Your task to perform on an android device: see creations saved in the google photos Image 0: 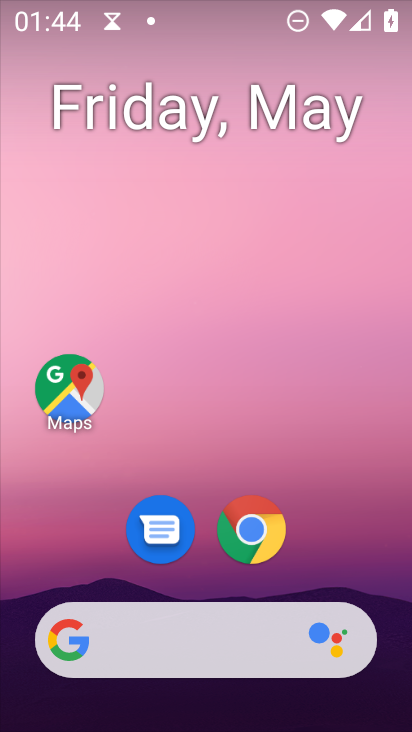
Step 0: drag from (326, 548) to (314, 174)
Your task to perform on an android device: see creations saved in the google photos Image 1: 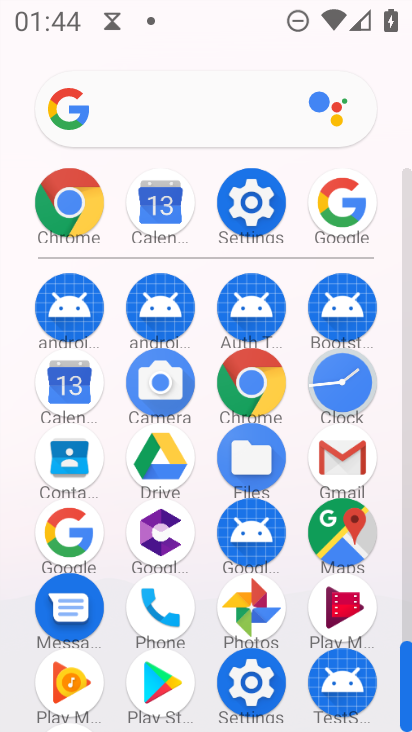
Step 1: click (240, 593)
Your task to perform on an android device: see creations saved in the google photos Image 2: 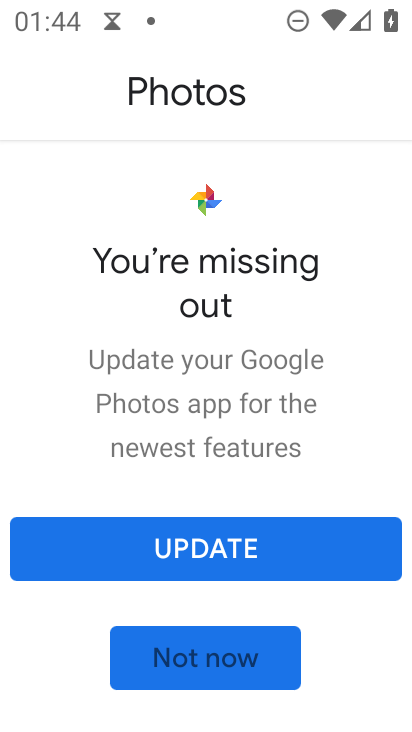
Step 2: click (194, 654)
Your task to perform on an android device: see creations saved in the google photos Image 3: 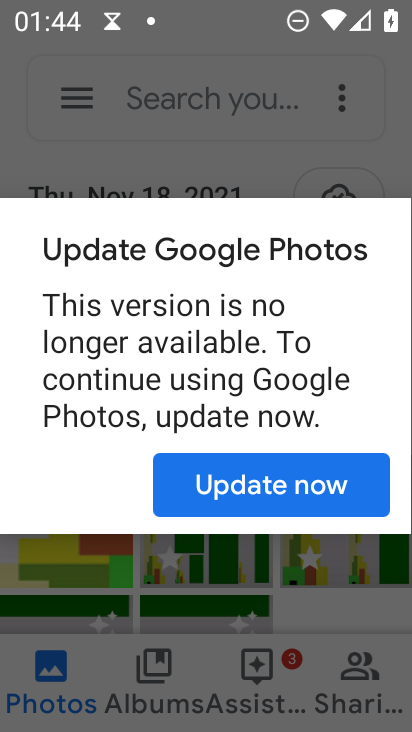
Step 3: click (192, 462)
Your task to perform on an android device: see creations saved in the google photos Image 4: 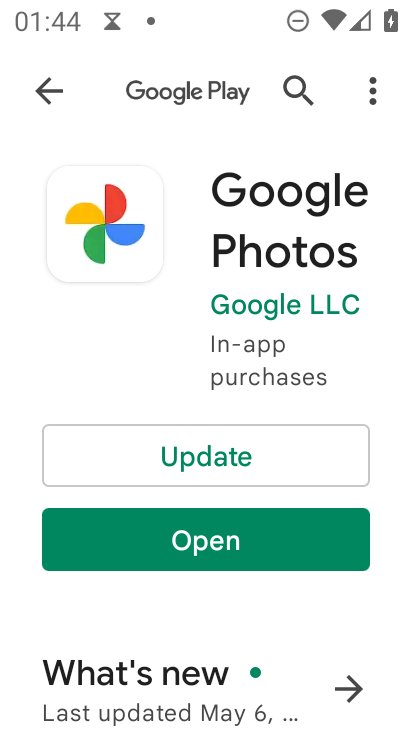
Step 4: press back button
Your task to perform on an android device: see creations saved in the google photos Image 5: 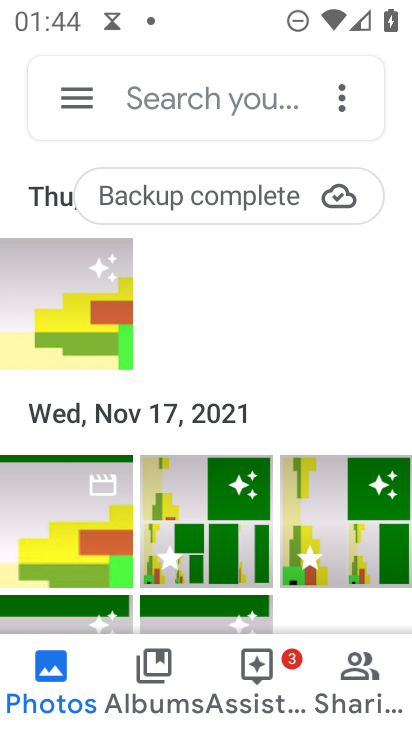
Step 5: click (94, 307)
Your task to perform on an android device: see creations saved in the google photos Image 6: 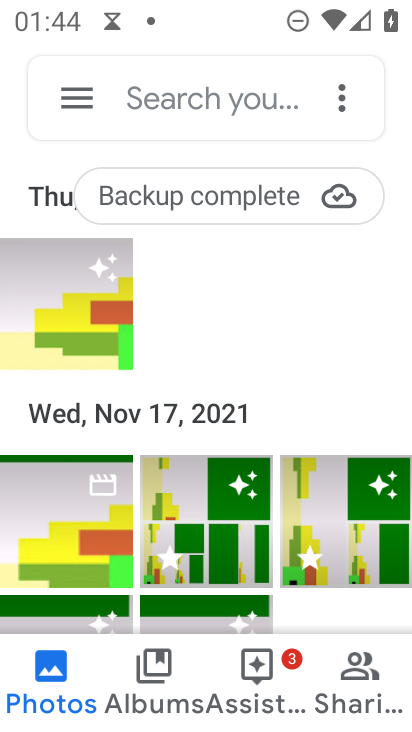
Step 6: click (94, 307)
Your task to perform on an android device: see creations saved in the google photos Image 7: 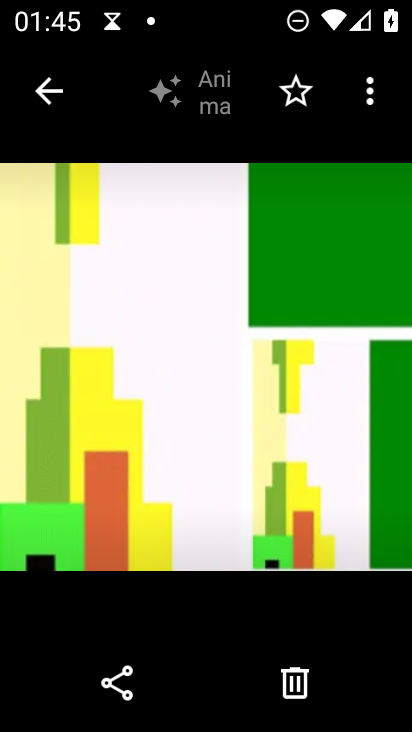
Step 7: task complete